Your task to perform on an android device: find snoozed emails in the gmail app Image 0: 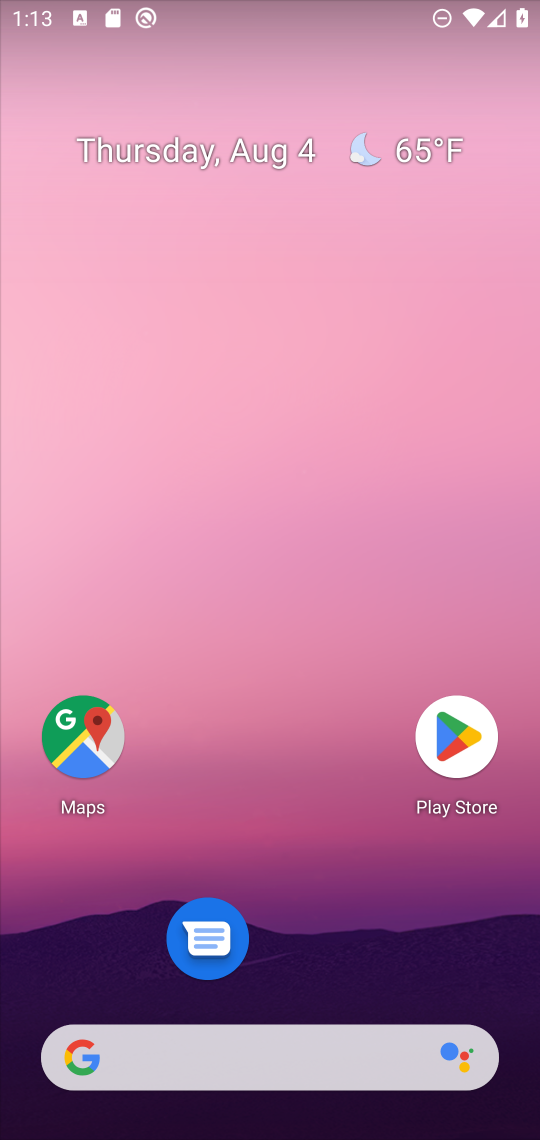
Step 0: drag from (127, 1054) to (37, 756)
Your task to perform on an android device: find snoozed emails in the gmail app Image 1: 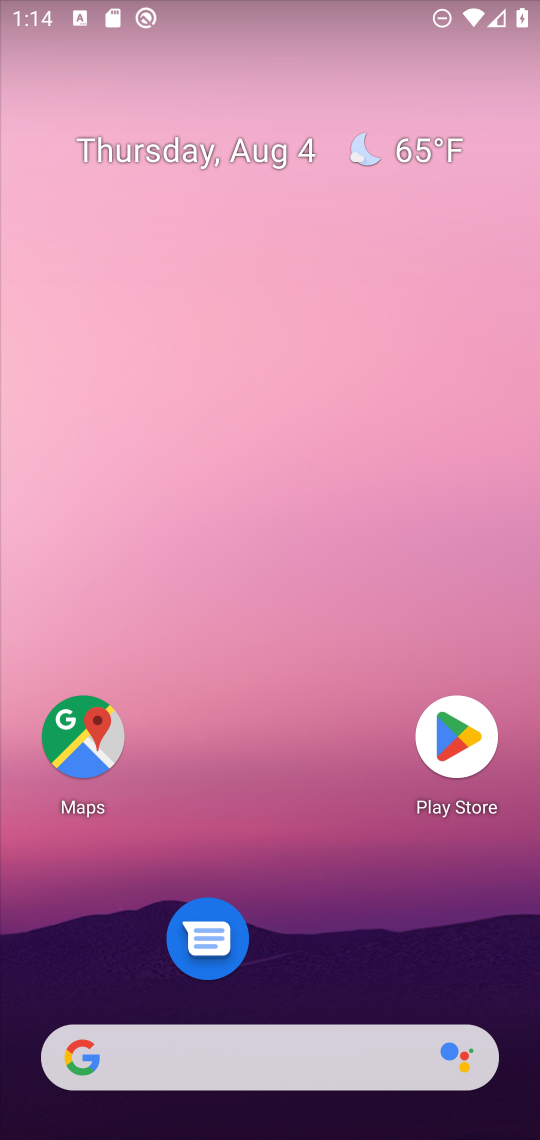
Step 1: drag from (201, 752) to (275, 116)
Your task to perform on an android device: find snoozed emails in the gmail app Image 2: 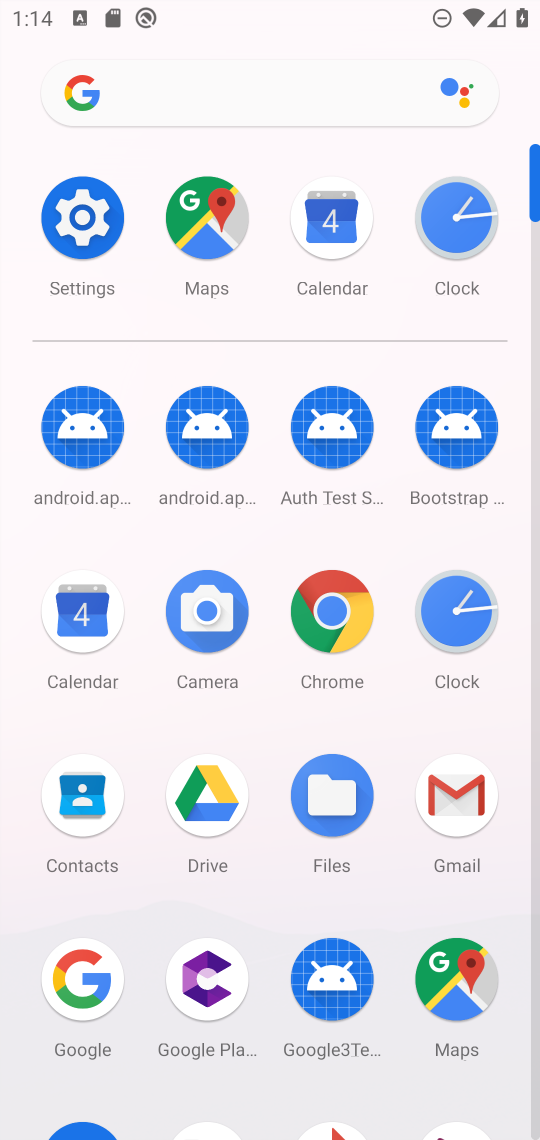
Step 2: click (449, 801)
Your task to perform on an android device: find snoozed emails in the gmail app Image 3: 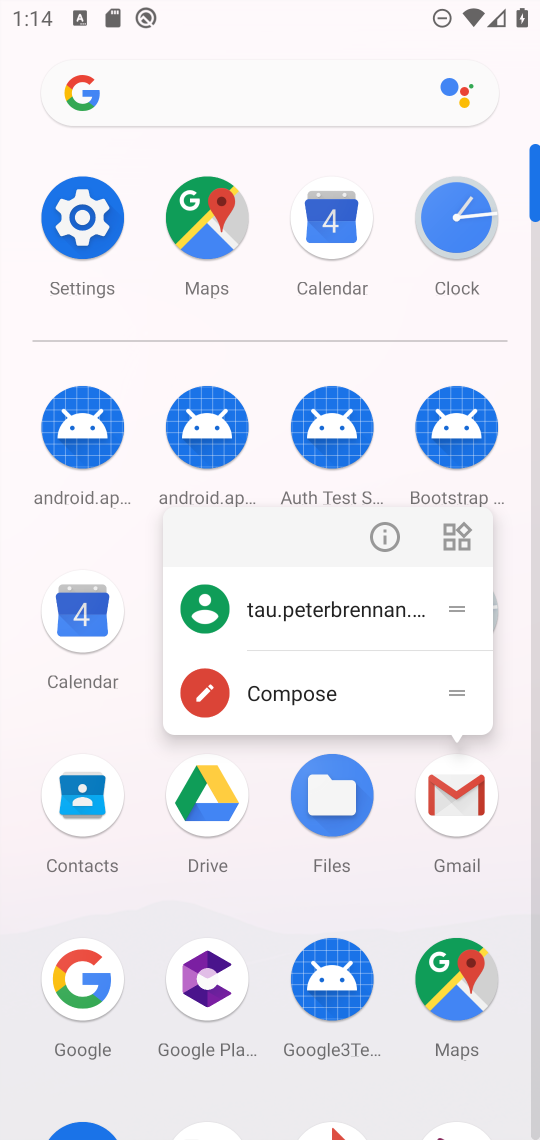
Step 3: click (449, 801)
Your task to perform on an android device: find snoozed emails in the gmail app Image 4: 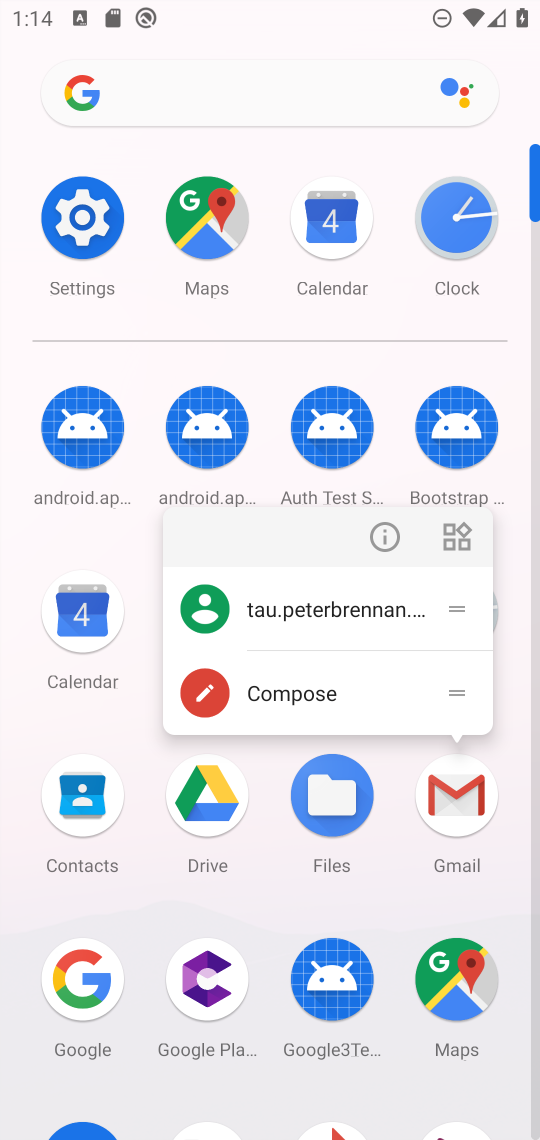
Step 4: click (449, 825)
Your task to perform on an android device: find snoozed emails in the gmail app Image 5: 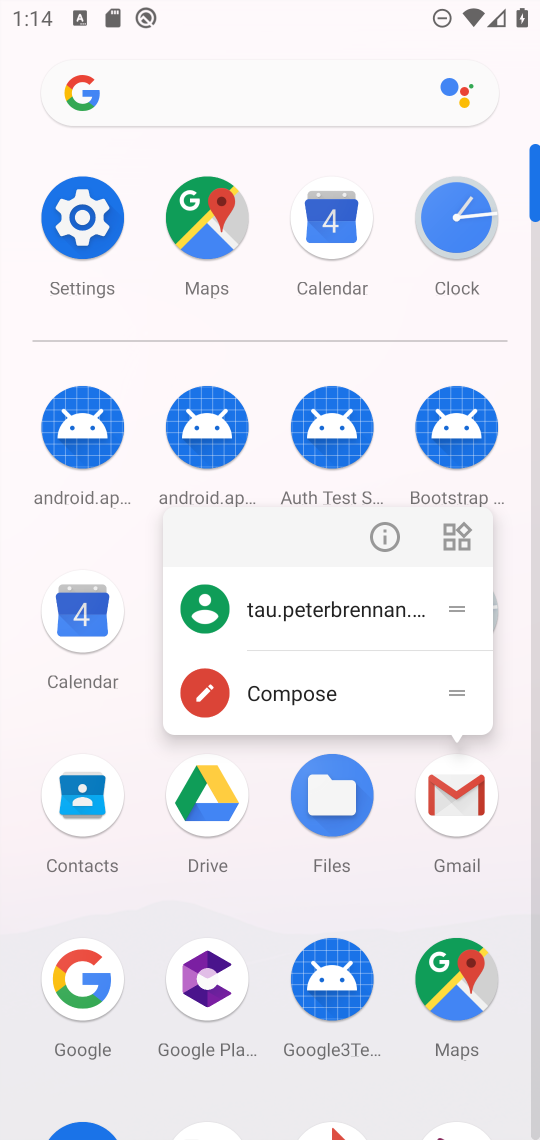
Step 5: click (451, 810)
Your task to perform on an android device: find snoozed emails in the gmail app Image 6: 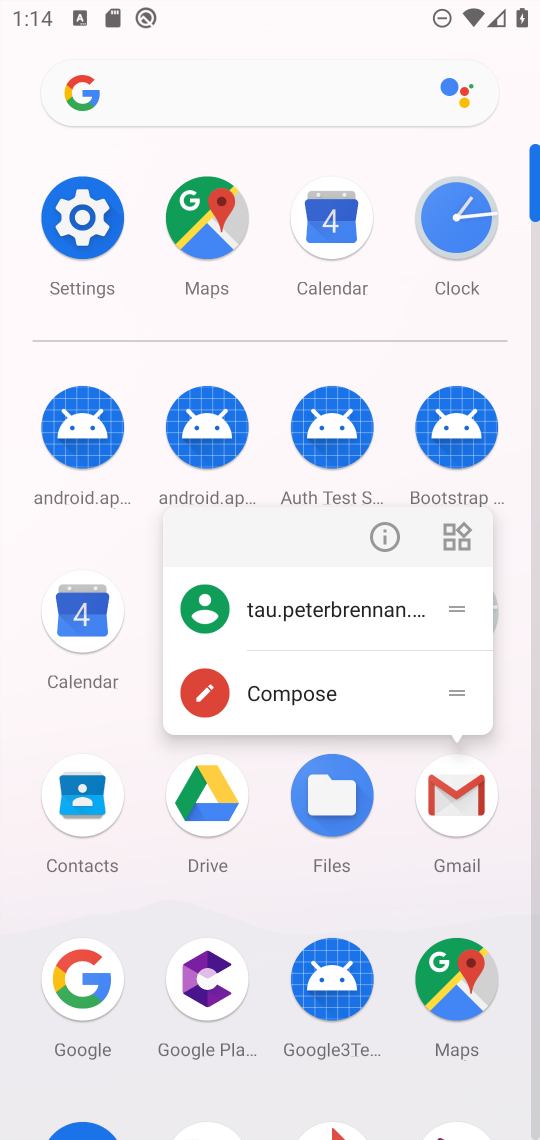
Step 6: click (463, 778)
Your task to perform on an android device: find snoozed emails in the gmail app Image 7: 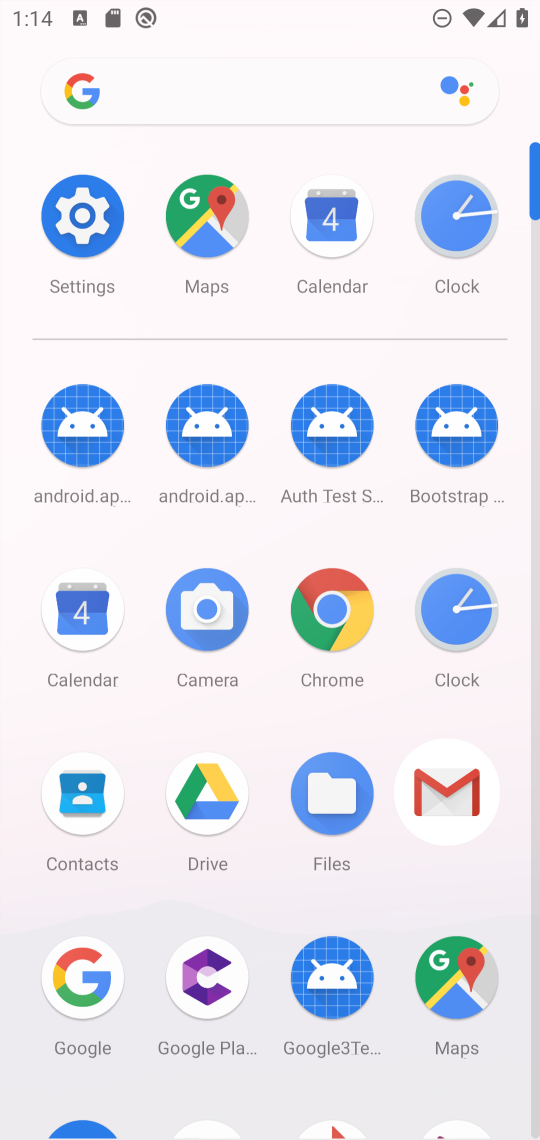
Step 7: click (474, 805)
Your task to perform on an android device: find snoozed emails in the gmail app Image 8: 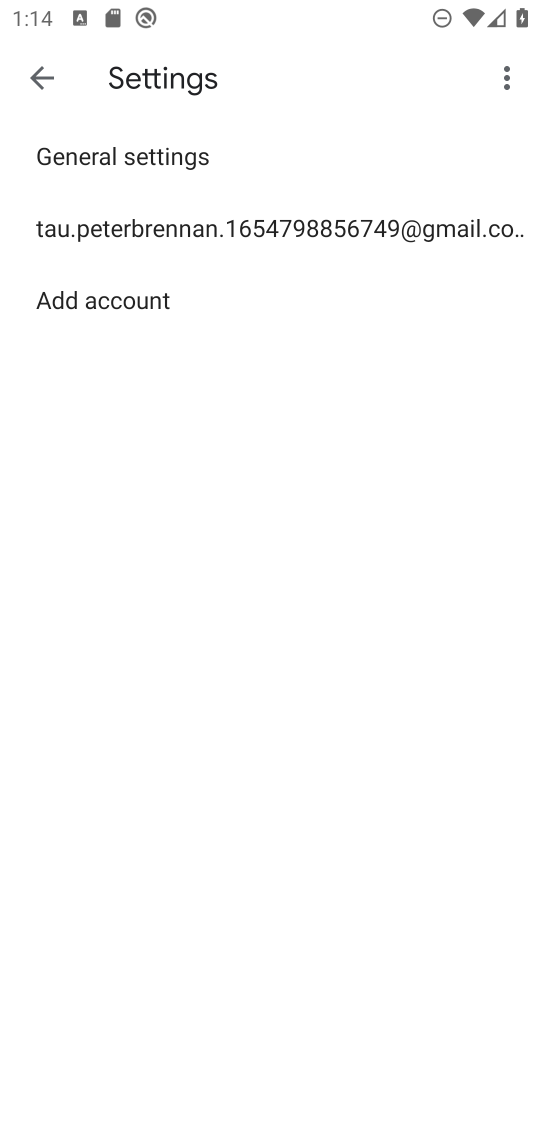
Step 8: click (41, 73)
Your task to perform on an android device: find snoozed emails in the gmail app Image 9: 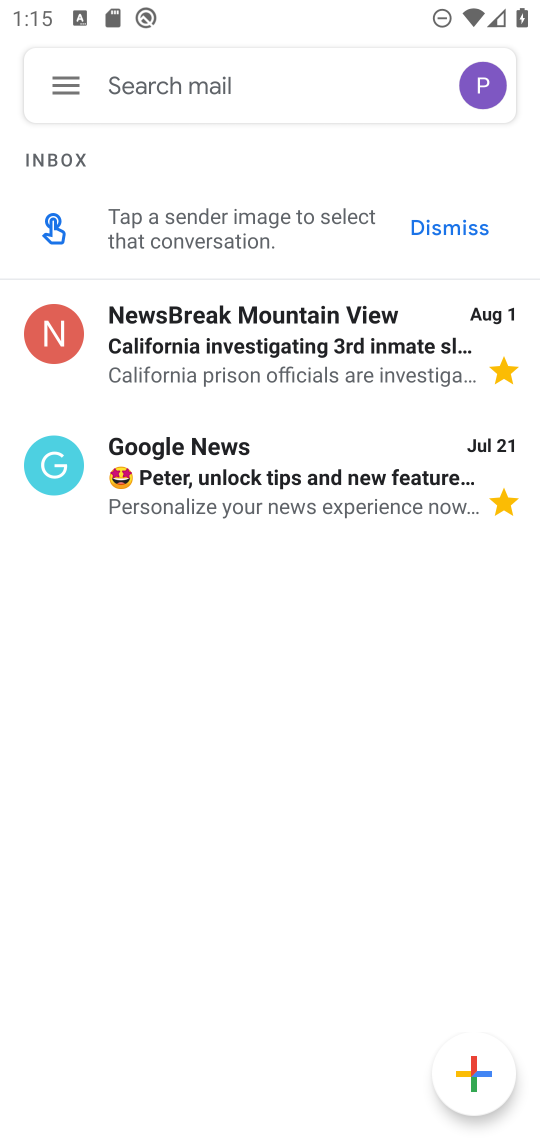
Step 9: click (66, 87)
Your task to perform on an android device: find snoozed emails in the gmail app Image 10: 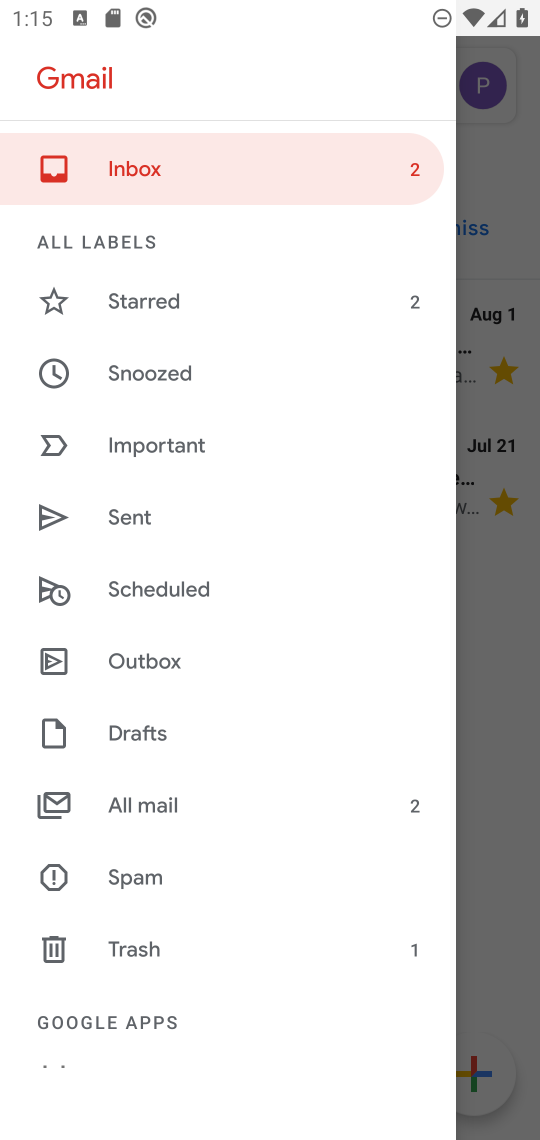
Step 10: click (162, 369)
Your task to perform on an android device: find snoozed emails in the gmail app Image 11: 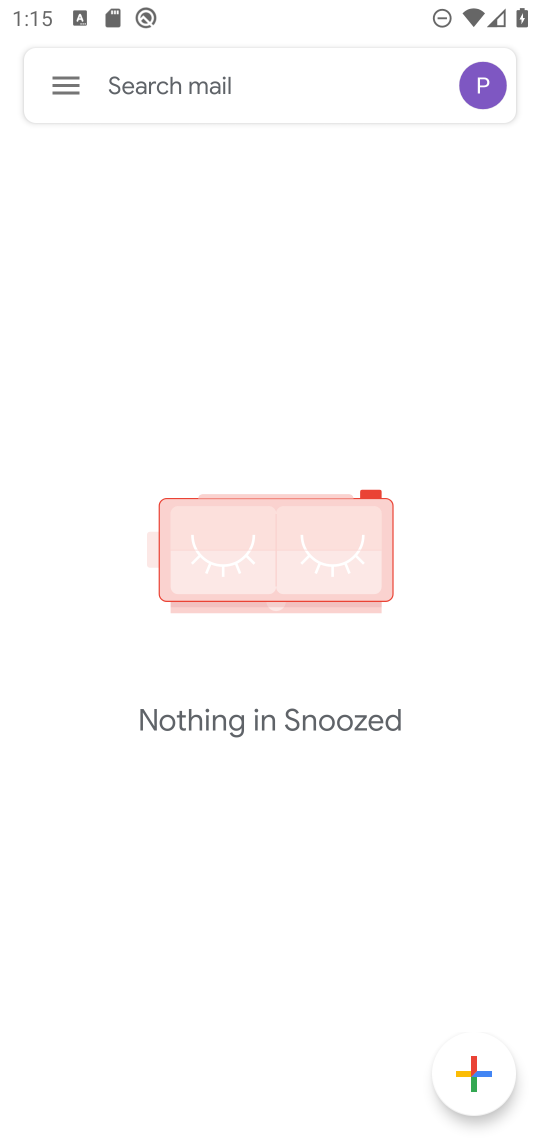
Step 11: task complete